Your task to perform on an android device: What's the weather? Image 0: 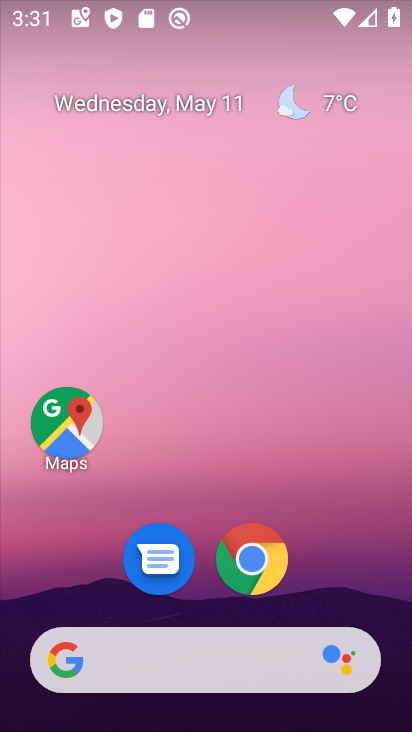
Step 0: drag from (209, 603) to (155, 264)
Your task to perform on an android device: What's the weather? Image 1: 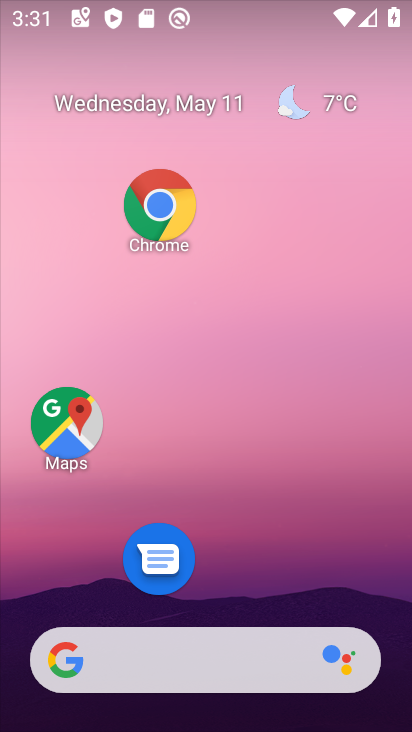
Step 1: drag from (231, 641) to (222, 279)
Your task to perform on an android device: What's the weather? Image 2: 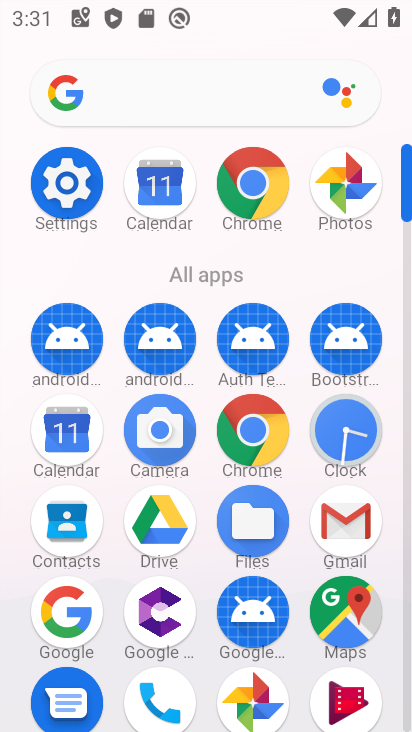
Step 2: click (73, 615)
Your task to perform on an android device: What's the weather? Image 3: 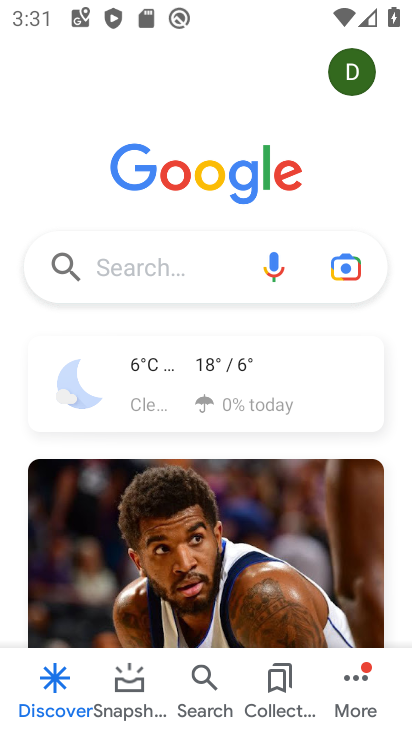
Step 3: click (117, 277)
Your task to perform on an android device: What's the weather? Image 4: 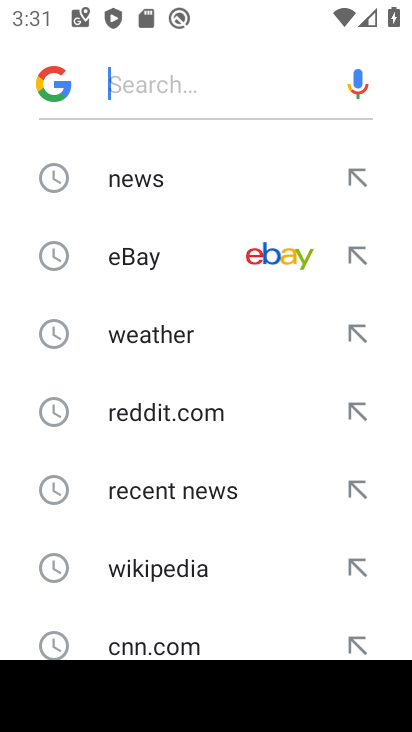
Step 4: click (133, 329)
Your task to perform on an android device: What's the weather? Image 5: 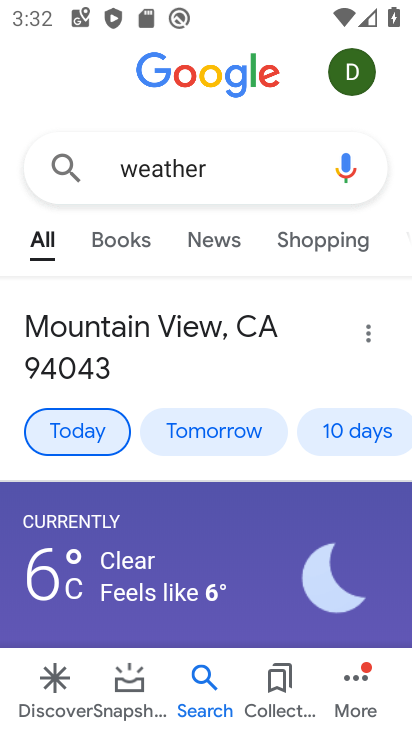
Step 5: task complete